Your task to perform on an android device: What's the weather? Image 0: 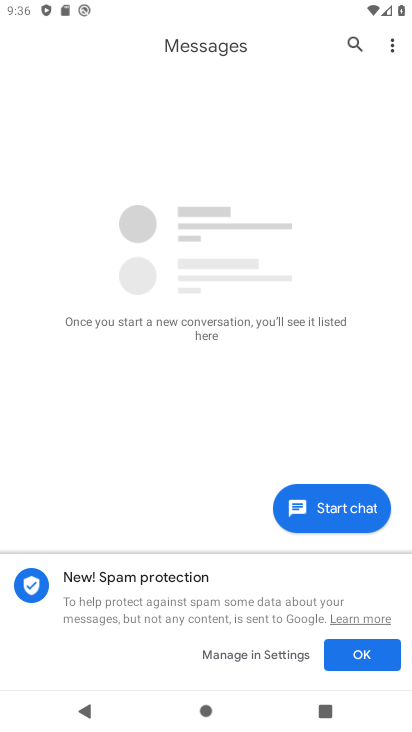
Step 0: press home button
Your task to perform on an android device: What's the weather? Image 1: 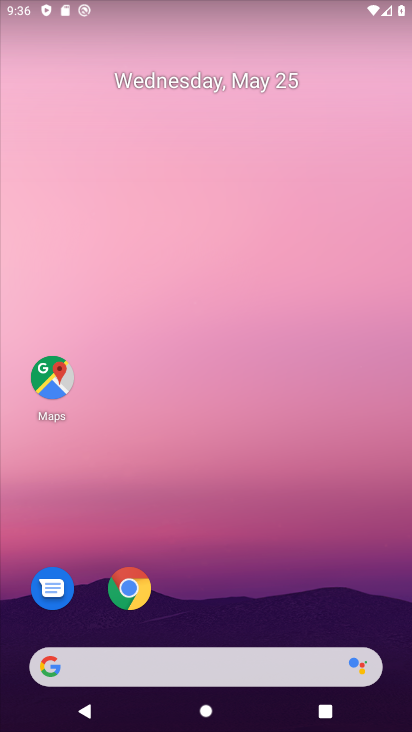
Step 1: click (154, 667)
Your task to perform on an android device: What's the weather? Image 2: 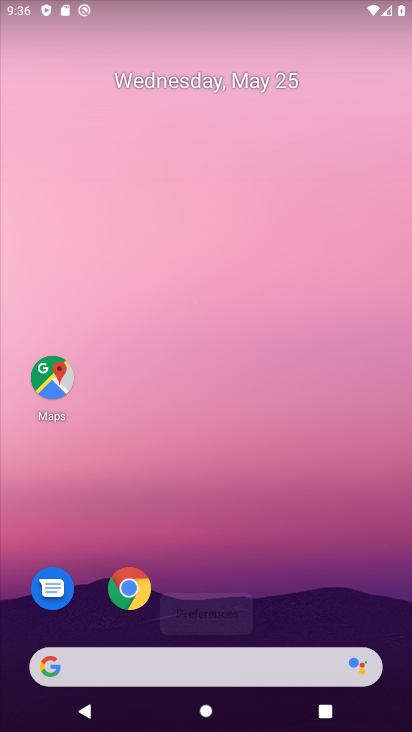
Step 2: click (75, 661)
Your task to perform on an android device: What's the weather? Image 3: 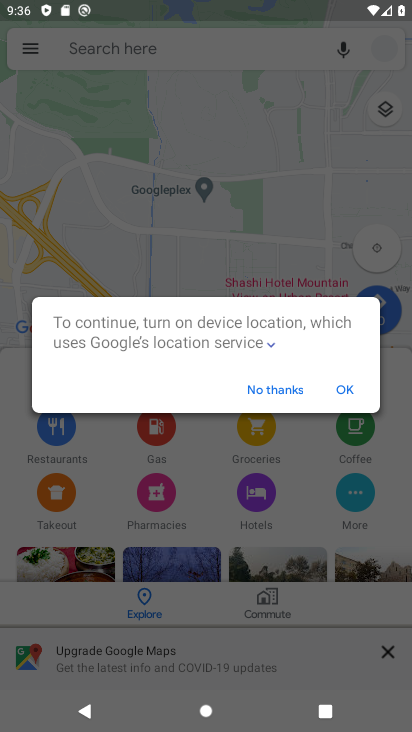
Step 3: press home button
Your task to perform on an android device: What's the weather? Image 4: 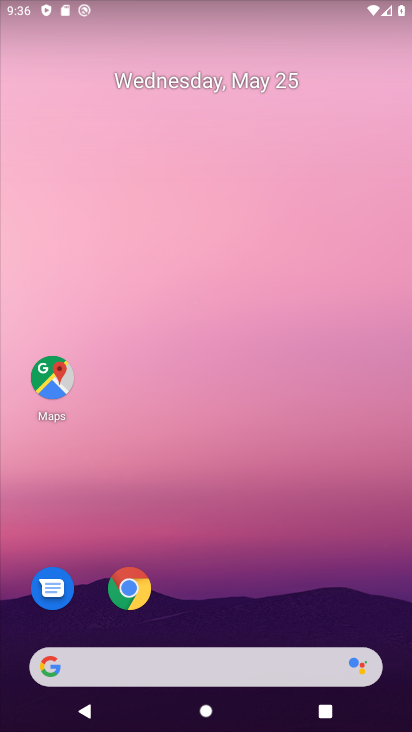
Step 4: click (162, 662)
Your task to perform on an android device: What's the weather? Image 5: 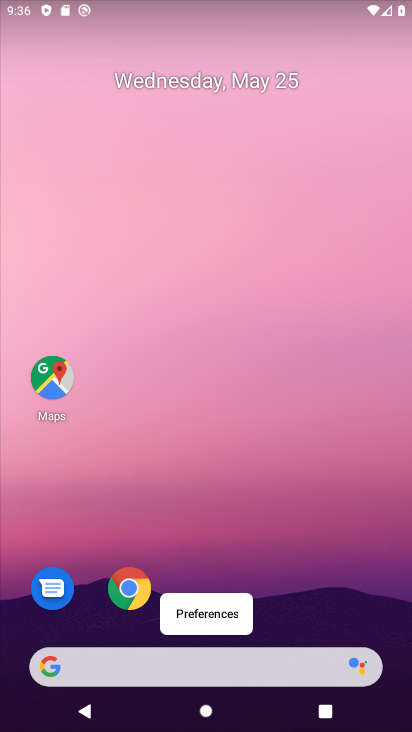
Step 5: click (169, 654)
Your task to perform on an android device: What's the weather? Image 6: 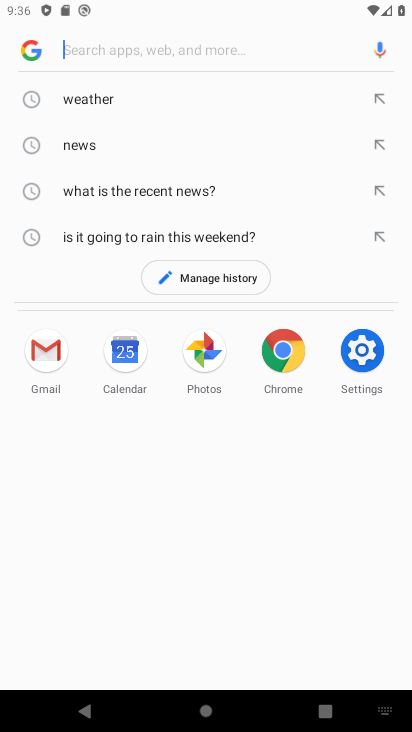
Step 6: type "what's the weather"
Your task to perform on an android device: What's the weather? Image 7: 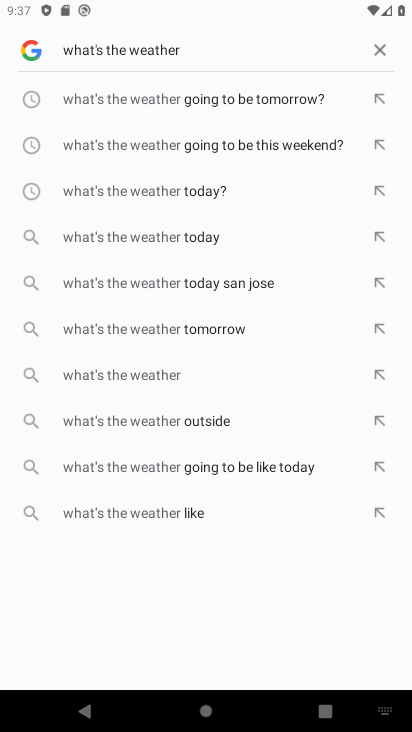
Step 7: click (145, 366)
Your task to perform on an android device: What's the weather? Image 8: 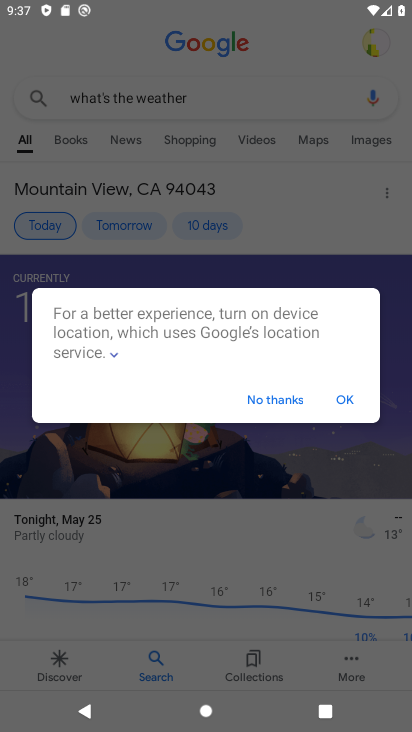
Step 8: click (262, 403)
Your task to perform on an android device: What's the weather? Image 9: 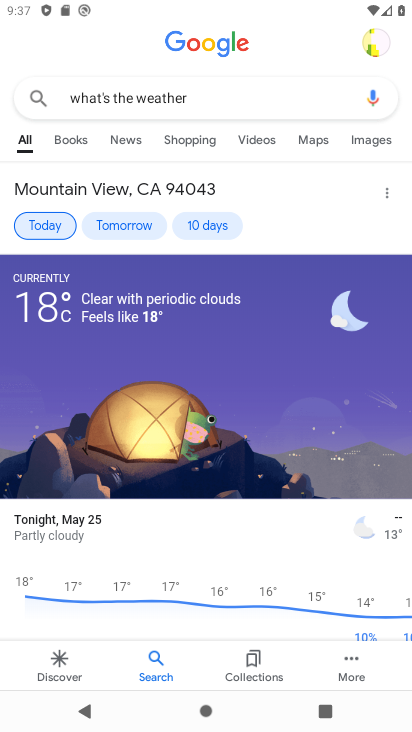
Step 9: task complete